Your task to perform on an android device: Open Amazon Image 0: 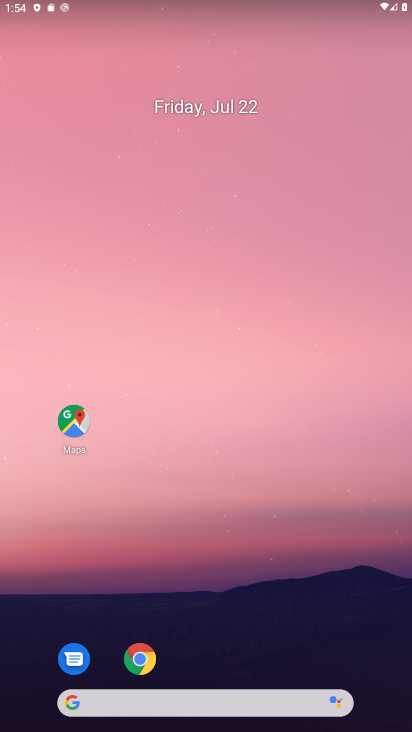
Step 0: click (155, 650)
Your task to perform on an android device: Open Amazon Image 1: 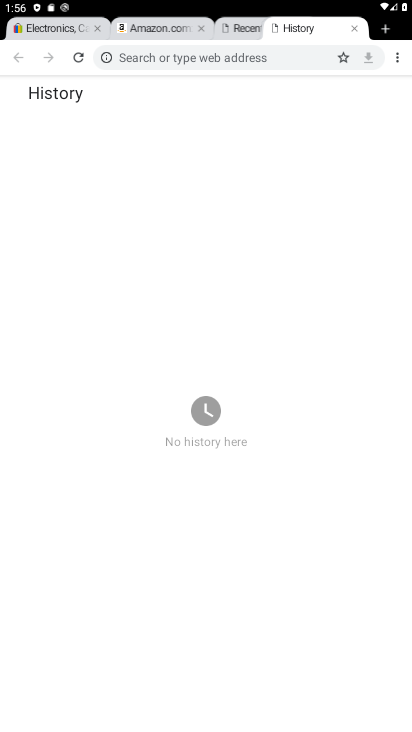
Step 1: task complete